Your task to perform on an android device: turn on location history Image 0: 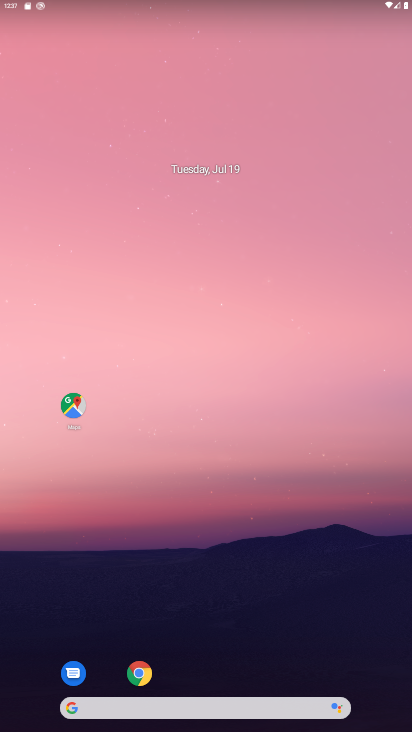
Step 0: drag from (213, 672) to (189, 210)
Your task to perform on an android device: turn on location history Image 1: 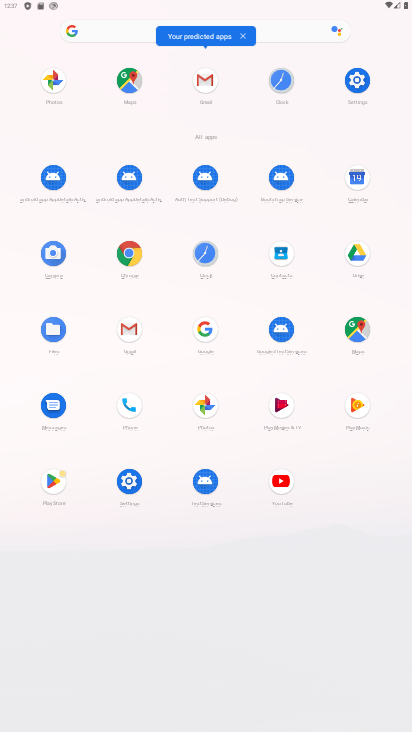
Step 1: click (128, 483)
Your task to perform on an android device: turn on location history Image 2: 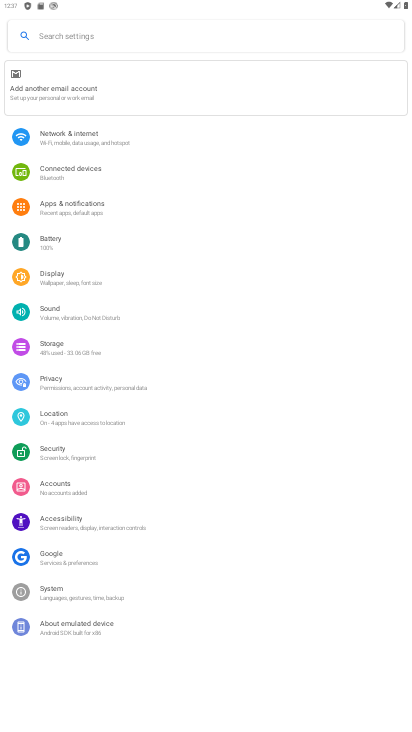
Step 2: click (51, 410)
Your task to perform on an android device: turn on location history Image 3: 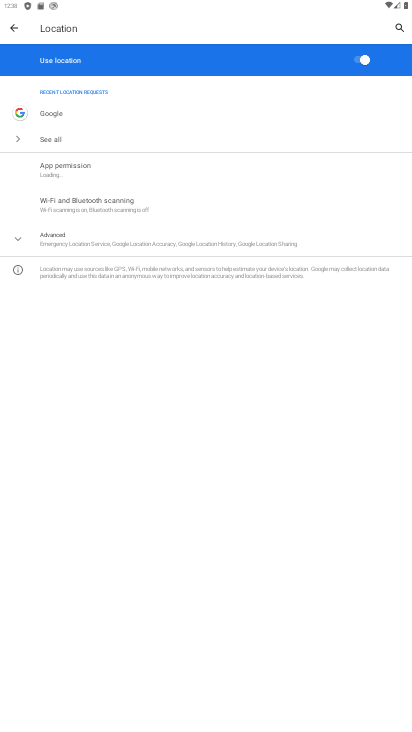
Step 3: click (70, 241)
Your task to perform on an android device: turn on location history Image 4: 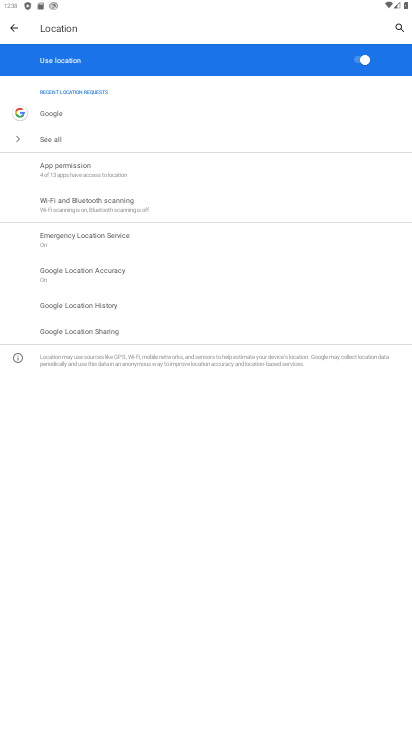
Step 4: click (105, 296)
Your task to perform on an android device: turn on location history Image 5: 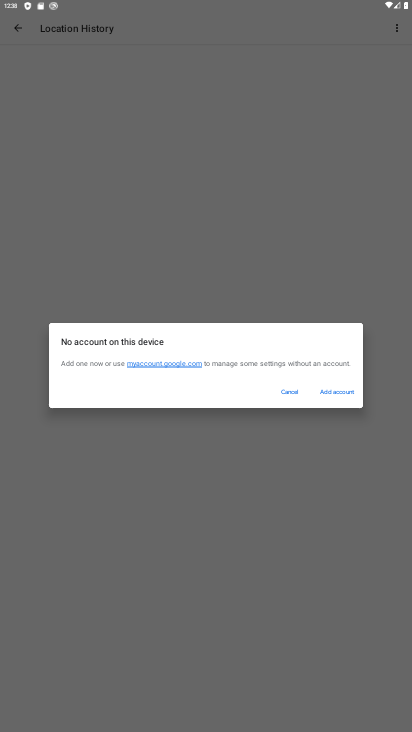
Step 5: click (281, 391)
Your task to perform on an android device: turn on location history Image 6: 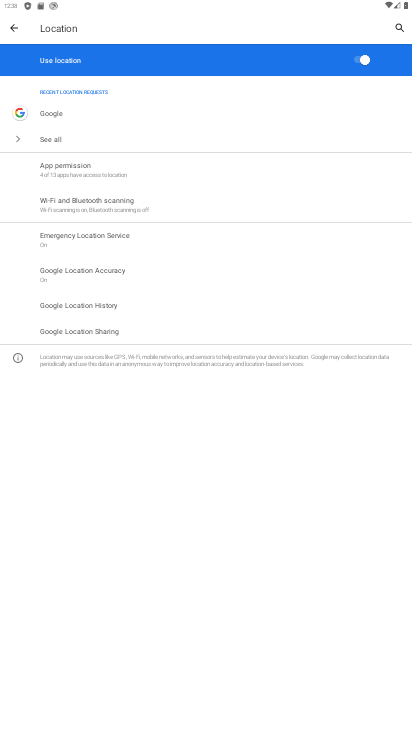
Step 6: task complete